Your task to perform on an android device: Open privacy settings Image 0: 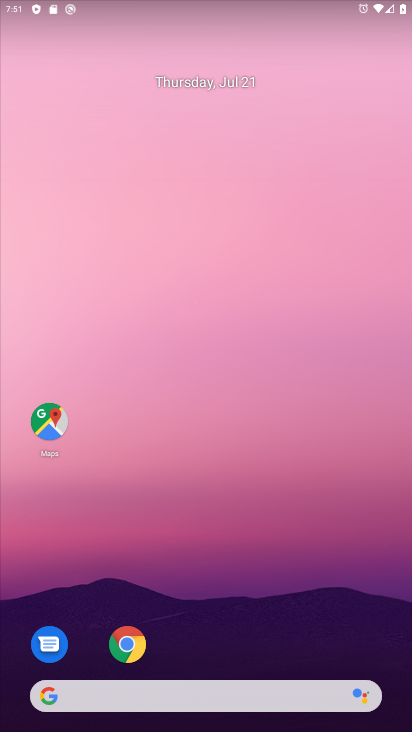
Step 0: drag from (349, 588) to (344, 158)
Your task to perform on an android device: Open privacy settings Image 1: 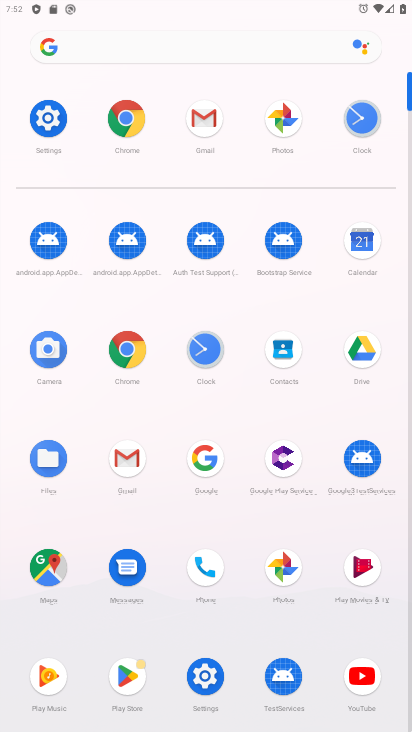
Step 1: click (54, 117)
Your task to perform on an android device: Open privacy settings Image 2: 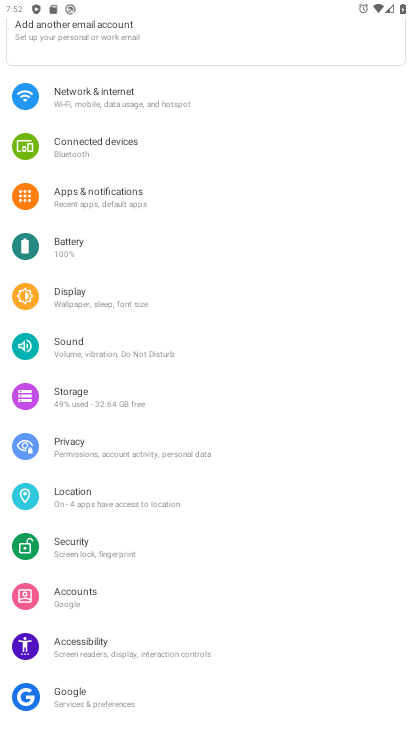
Step 2: drag from (280, 189) to (287, 262)
Your task to perform on an android device: Open privacy settings Image 3: 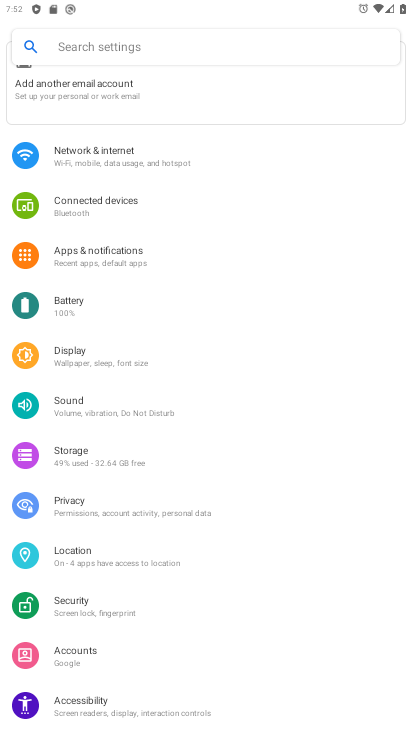
Step 3: drag from (319, 179) to (335, 286)
Your task to perform on an android device: Open privacy settings Image 4: 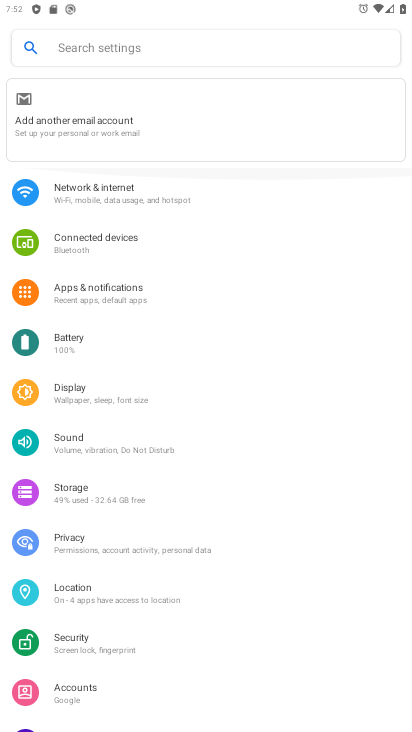
Step 4: drag from (346, 388) to (342, 333)
Your task to perform on an android device: Open privacy settings Image 5: 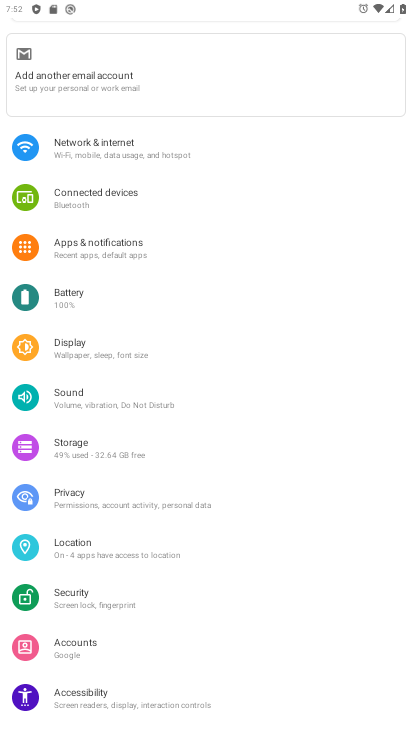
Step 5: drag from (342, 430) to (349, 336)
Your task to perform on an android device: Open privacy settings Image 6: 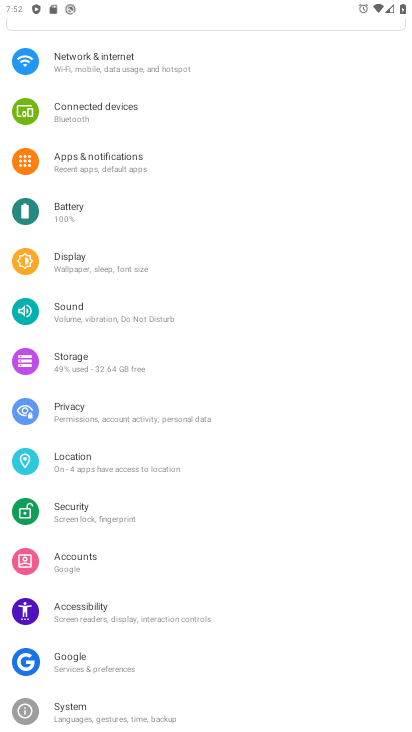
Step 6: drag from (340, 448) to (339, 367)
Your task to perform on an android device: Open privacy settings Image 7: 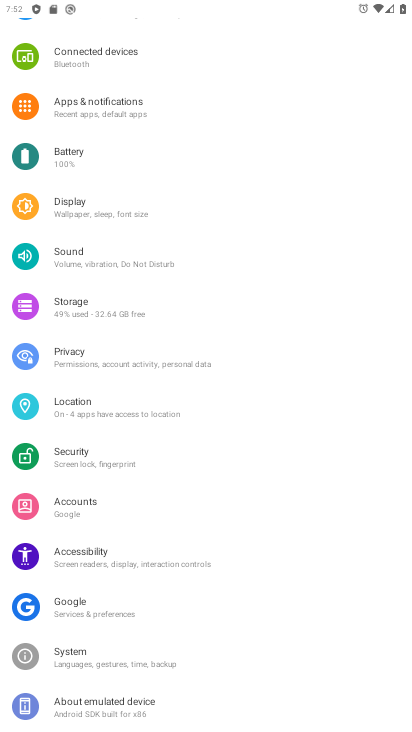
Step 7: click (293, 360)
Your task to perform on an android device: Open privacy settings Image 8: 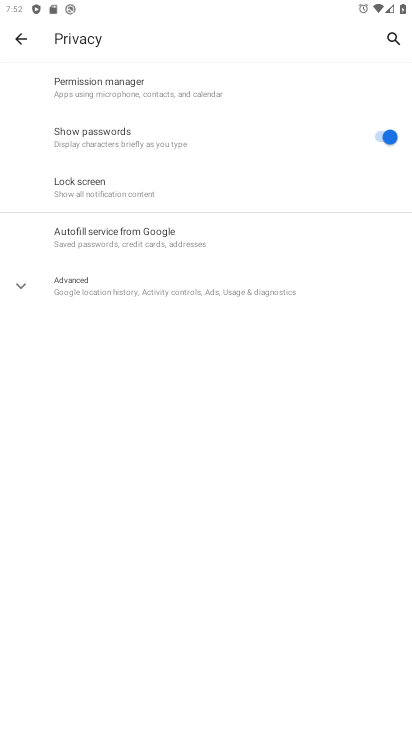
Step 8: task complete